Your task to perform on an android device: Search for vegetarian restaurants on Maps Image 0: 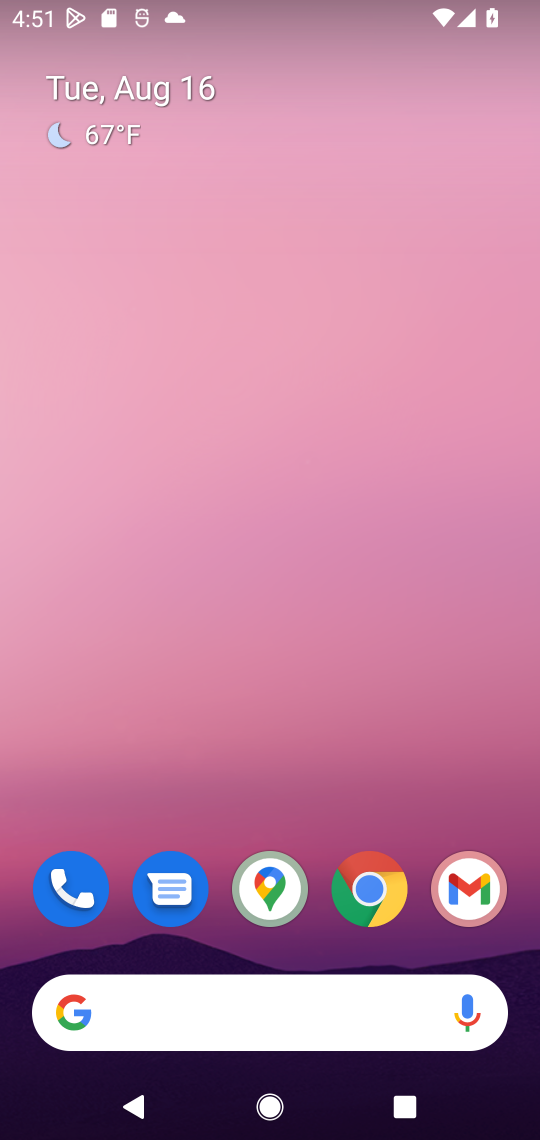
Step 0: drag from (346, 493) to (355, 320)
Your task to perform on an android device: Search for vegetarian restaurants on Maps Image 1: 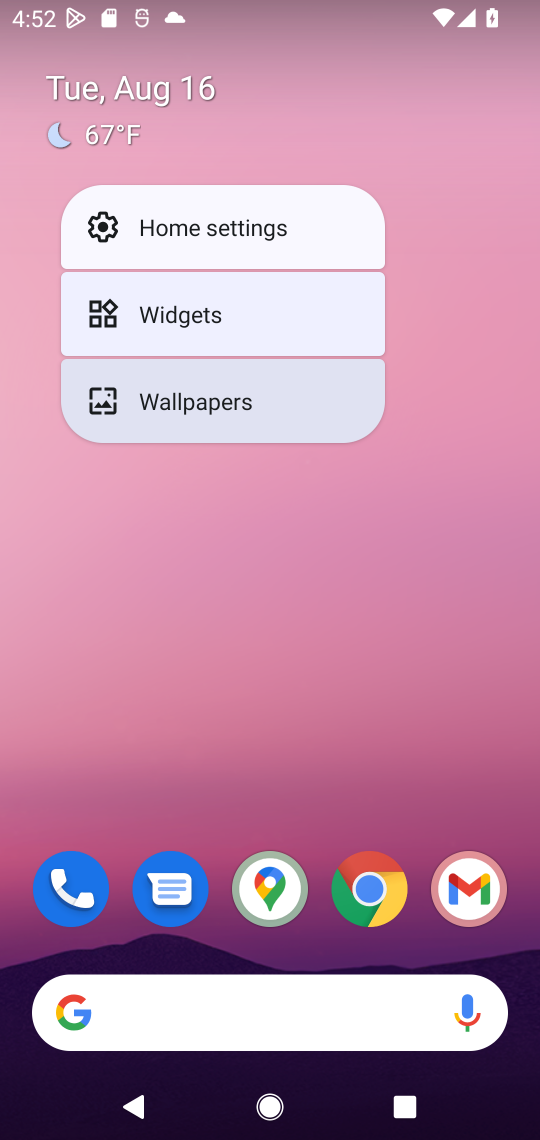
Step 1: click (311, 653)
Your task to perform on an android device: Search for vegetarian restaurants on Maps Image 2: 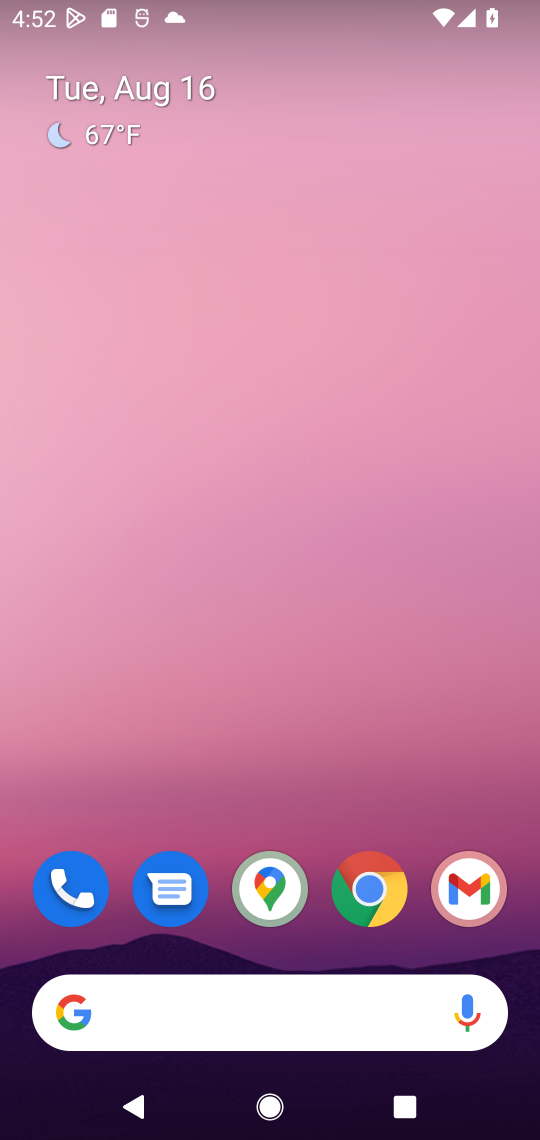
Step 2: task complete